Your task to perform on an android device: change the clock style Image 0: 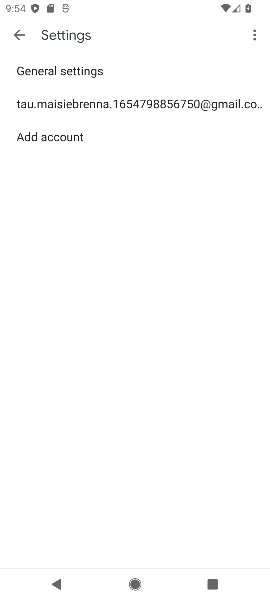
Step 0: press home button
Your task to perform on an android device: change the clock style Image 1: 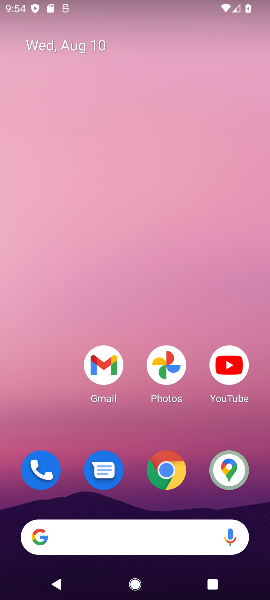
Step 1: drag from (136, 482) to (142, 329)
Your task to perform on an android device: change the clock style Image 2: 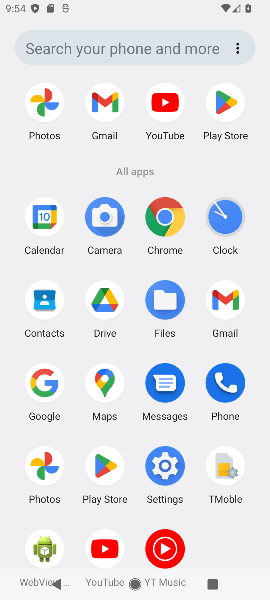
Step 2: click (214, 219)
Your task to perform on an android device: change the clock style Image 3: 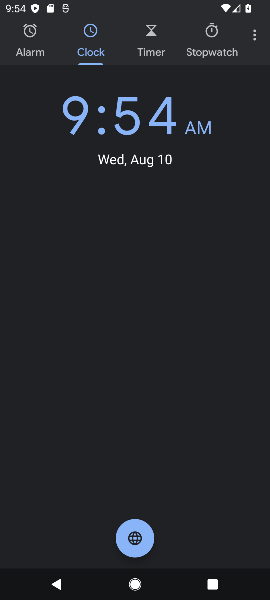
Step 3: click (264, 35)
Your task to perform on an android device: change the clock style Image 4: 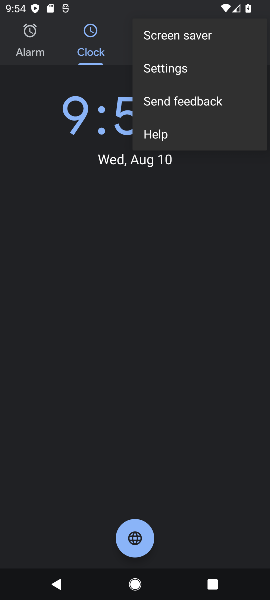
Step 4: click (177, 75)
Your task to perform on an android device: change the clock style Image 5: 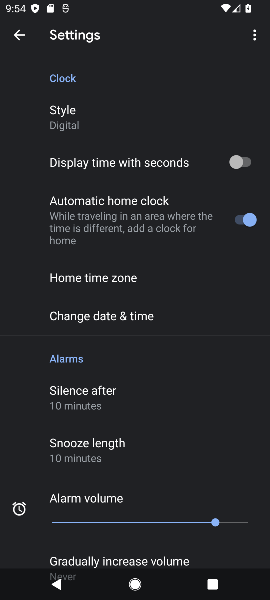
Step 5: click (92, 103)
Your task to perform on an android device: change the clock style Image 6: 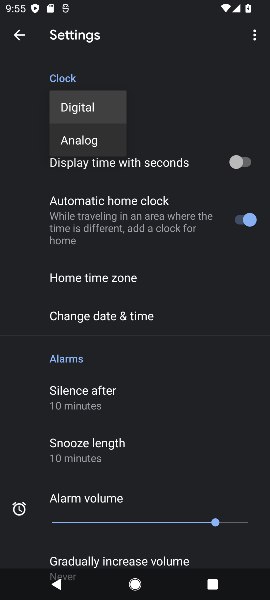
Step 6: click (101, 131)
Your task to perform on an android device: change the clock style Image 7: 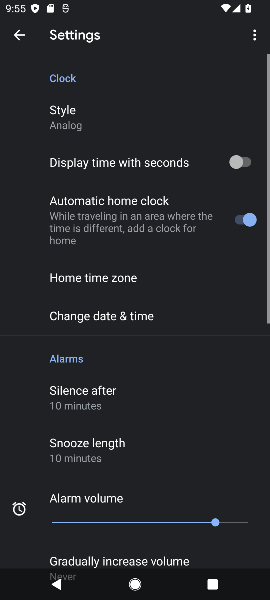
Step 7: task complete